Your task to perform on an android device: Open Google Chrome and open the bookmarks view Image 0: 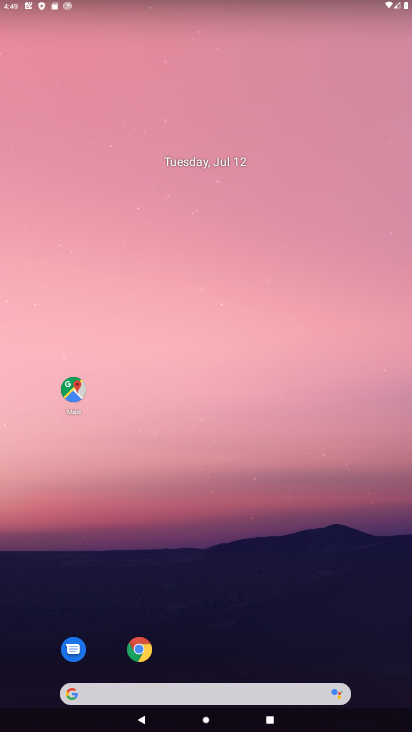
Step 0: click (141, 651)
Your task to perform on an android device: Open Google Chrome and open the bookmarks view Image 1: 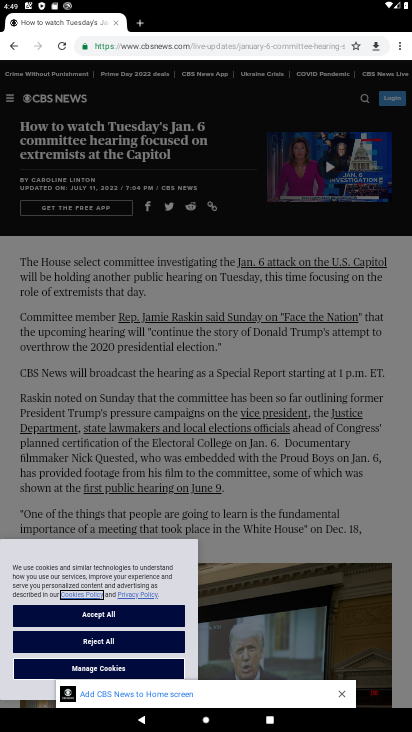
Step 1: click (399, 45)
Your task to perform on an android device: Open Google Chrome and open the bookmarks view Image 2: 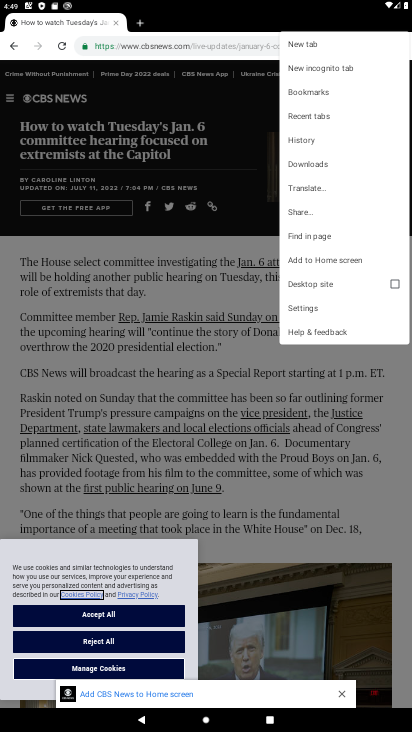
Step 2: click (319, 96)
Your task to perform on an android device: Open Google Chrome and open the bookmarks view Image 3: 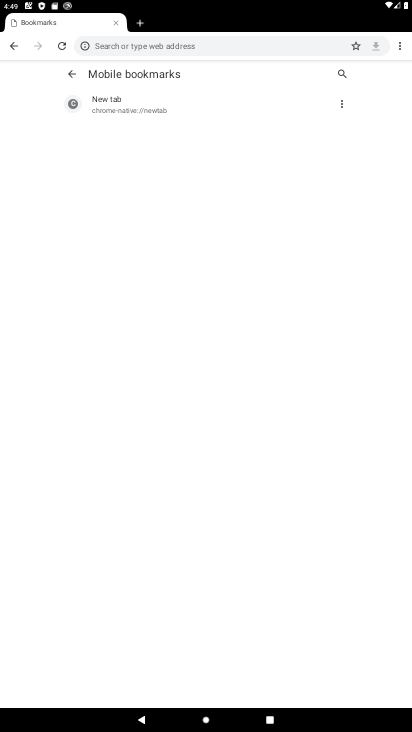
Step 3: task complete